Your task to perform on an android device: Is it going to rain today? Image 0: 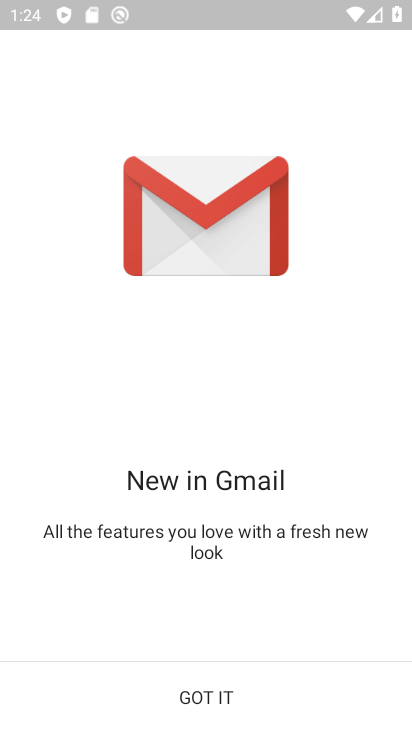
Step 0: press home button
Your task to perform on an android device: Is it going to rain today? Image 1: 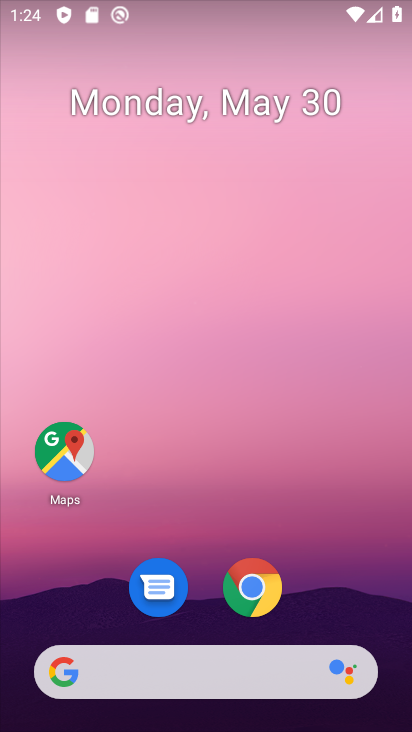
Step 1: click (205, 678)
Your task to perform on an android device: Is it going to rain today? Image 2: 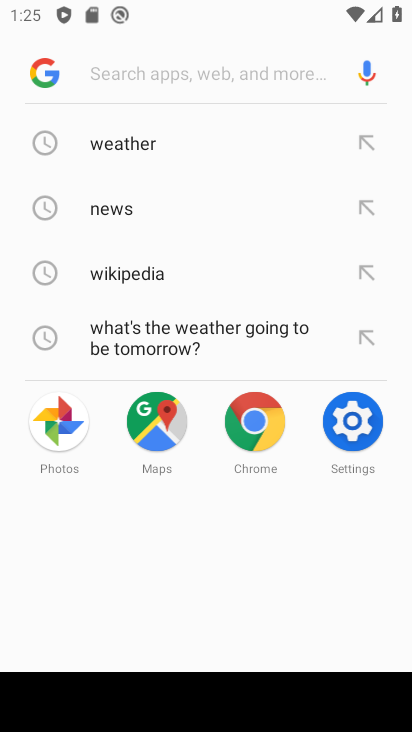
Step 2: click (85, 146)
Your task to perform on an android device: Is it going to rain today? Image 3: 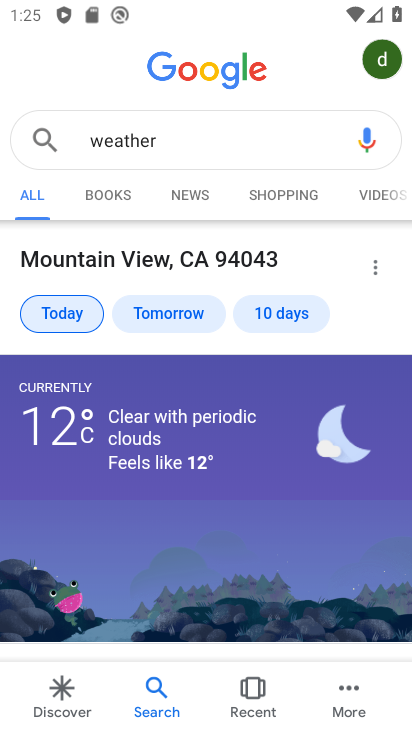
Step 3: task complete